Your task to perform on an android device: turn off notifications settings in the gmail app Image 0: 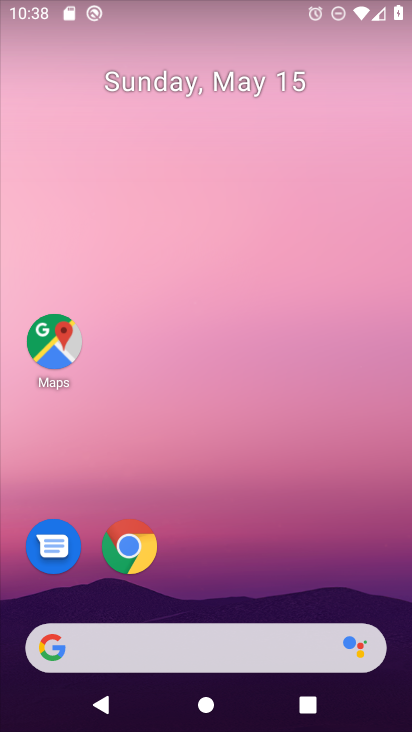
Step 0: drag from (313, 569) to (220, 133)
Your task to perform on an android device: turn off notifications settings in the gmail app Image 1: 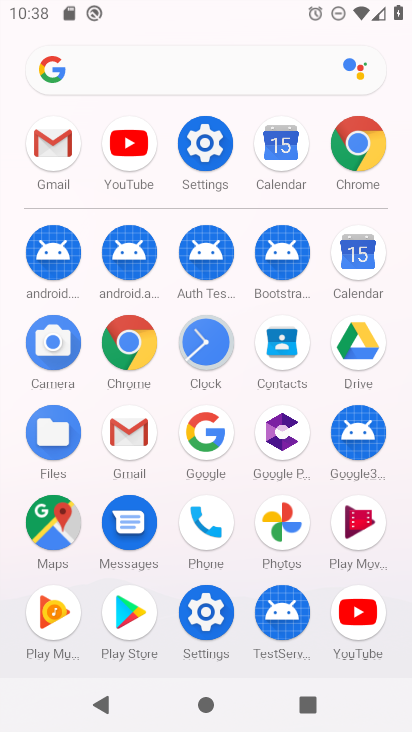
Step 1: click (51, 144)
Your task to perform on an android device: turn off notifications settings in the gmail app Image 2: 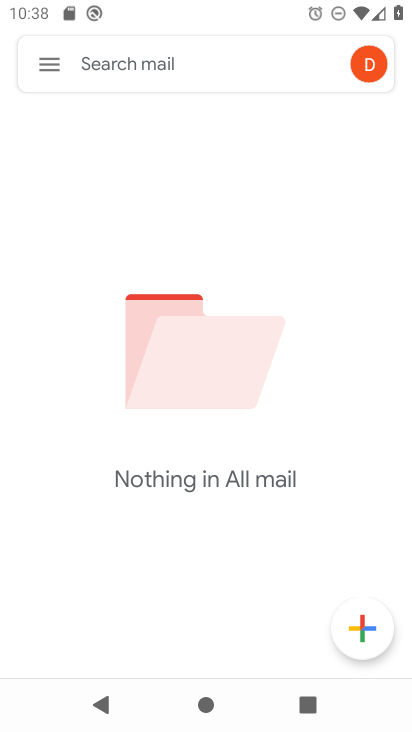
Step 2: click (49, 67)
Your task to perform on an android device: turn off notifications settings in the gmail app Image 3: 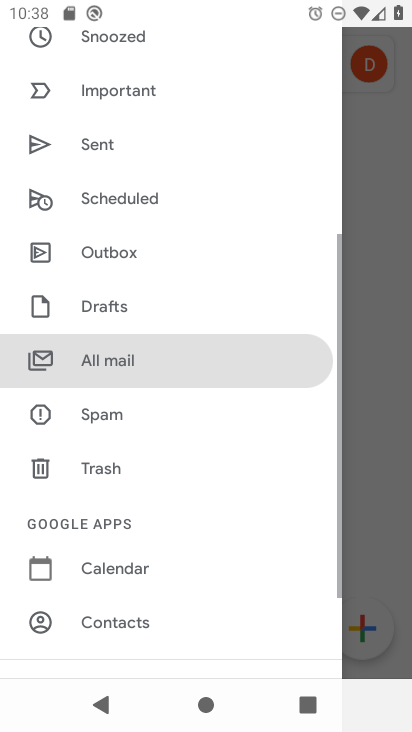
Step 3: drag from (179, 591) to (156, 128)
Your task to perform on an android device: turn off notifications settings in the gmail app Image 4: 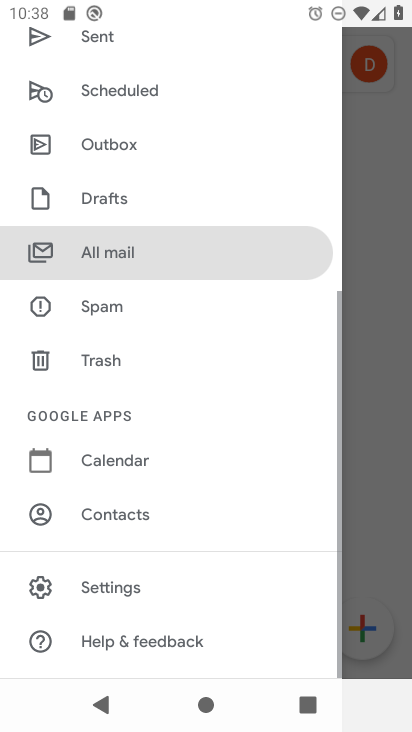
Step 4: click (141, 574)
Your task to perform on an android device: turn off notifications settings in the gmail app Image 5: 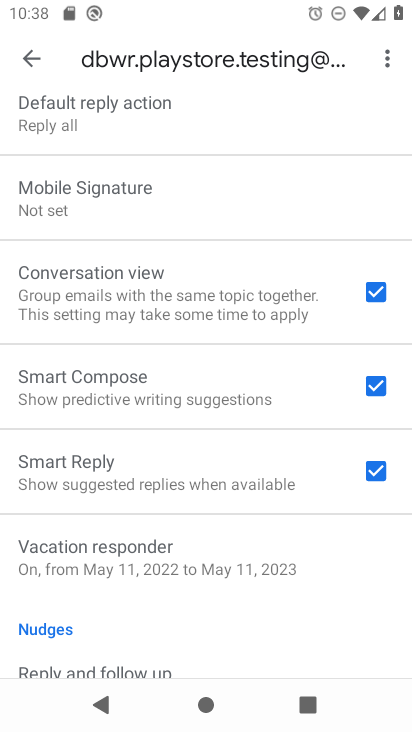
Step 5: drag from (183, 576) to (265, 719)
Your task to perform on an android device: turn off notifications settings in the gmail app Image 6: 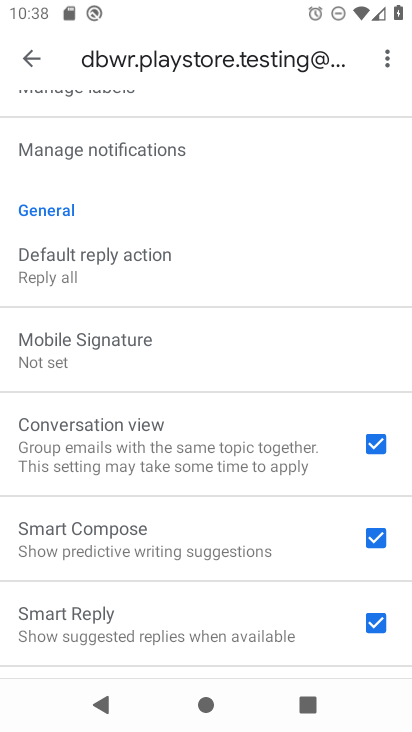
Step 6: click (136, 156)
Your task to perform on an android device: turn off notifications settings in the gmail app Image 7: 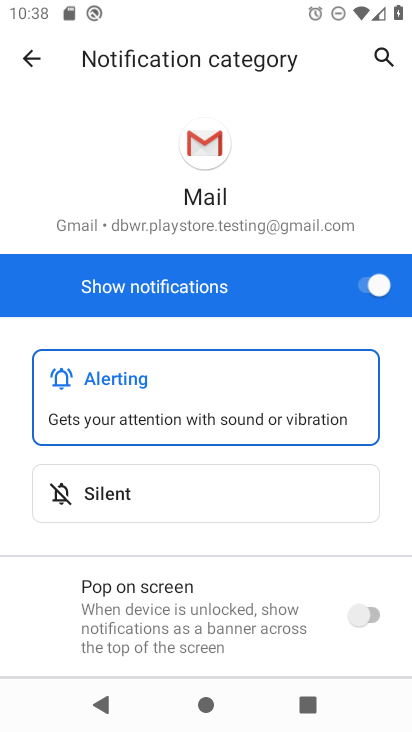
Step 7: click (354, 296)
Your task to perform on an android device: turn off notifications settings in the gmail app Image 8: 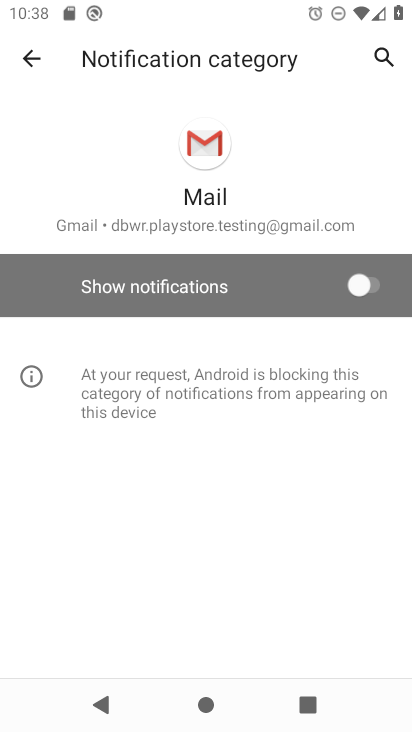
Step 8: task complete